Your task to perform on an android device: What's on my calendar today? Image 0: 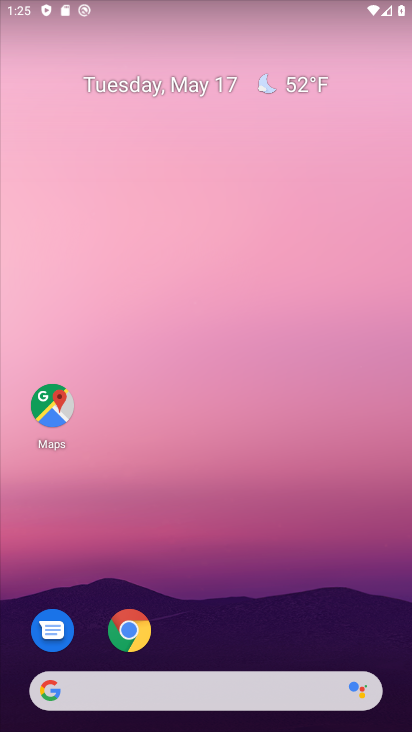
Step 0: drag from (179, 611) to (293, 50)
Your task to perform on an android device: What's on my calendar today? Image 1: 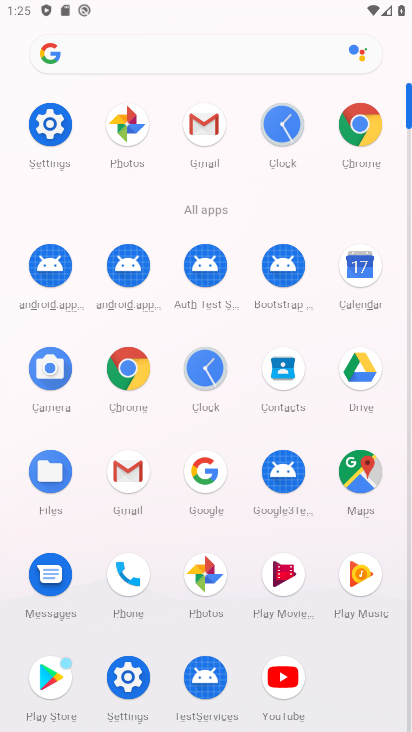
Step 1: click (353, 268)
Your task to perform on an android device: What's on my calendar today? Image 2: 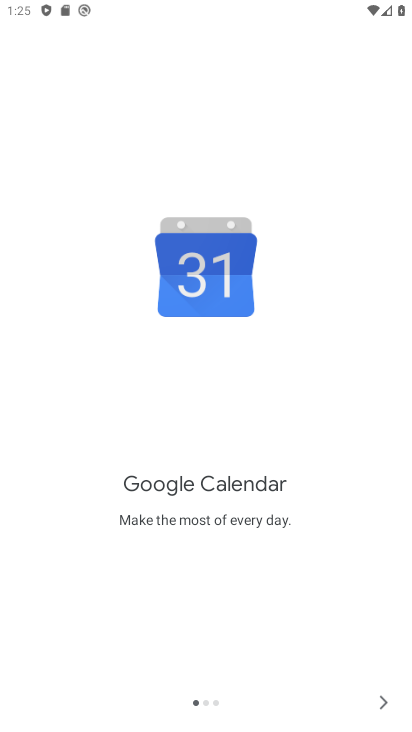
Step 2: click (388, 705)
Your task to perform on an android device: What's on my calendar today? Image 3: 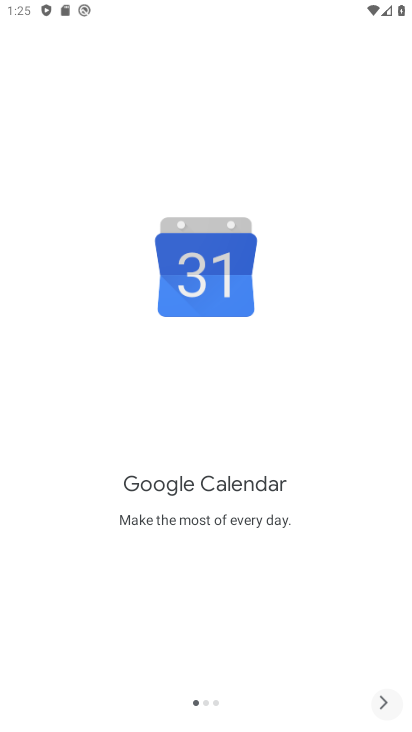
Step 3: click (388, 705)
Your task to perform on an android device: What's on my calendar today? Image 4: 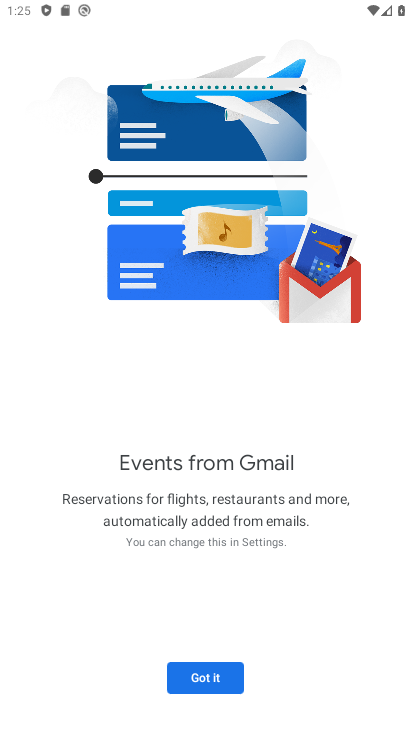
Step 4: click (227, 684)
Your task to perform on an android device: What's on my calendar today? Image 5: 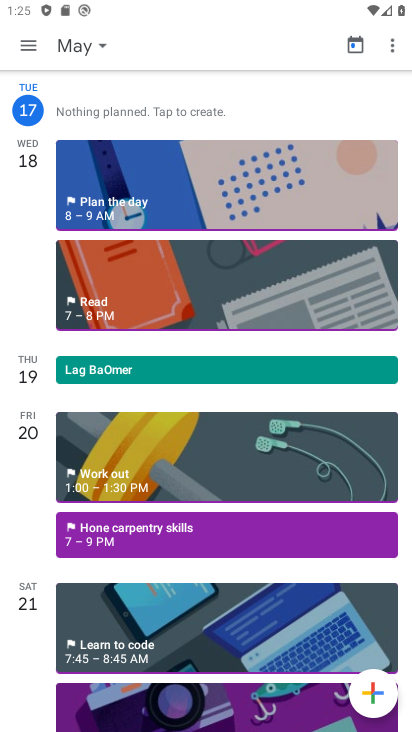
Step 5: click (168, 199)
Your task to perform on an android device: What's on my calendar today? Image 6: 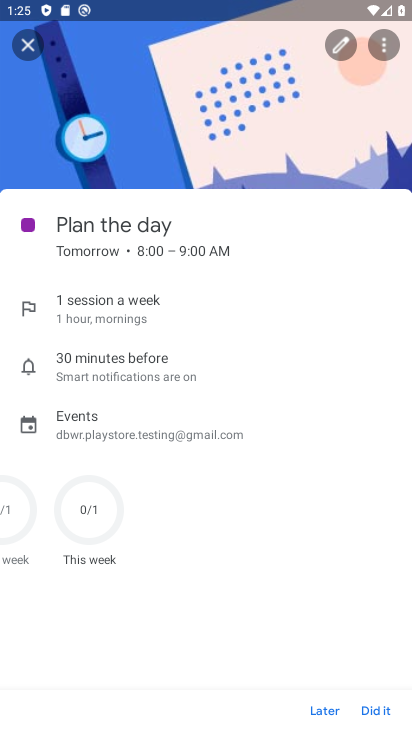
Step 6: task complete